Your task to perform on an android device: delete browsing data in the chrome app Image 0: 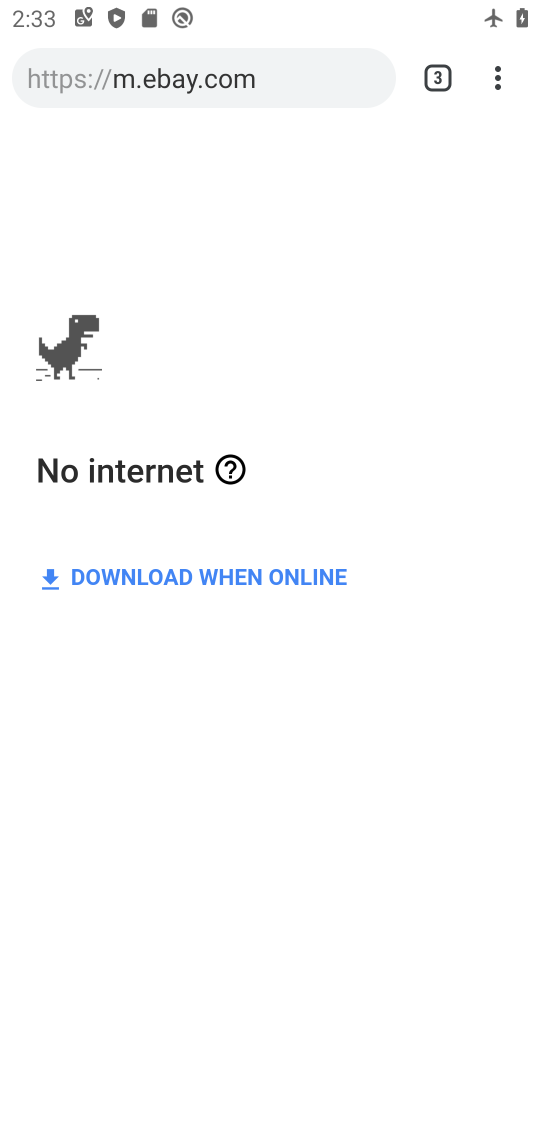
Step 0: press home button
Your task to perform on an android device: delete browsing data in the chrome app Image 1: 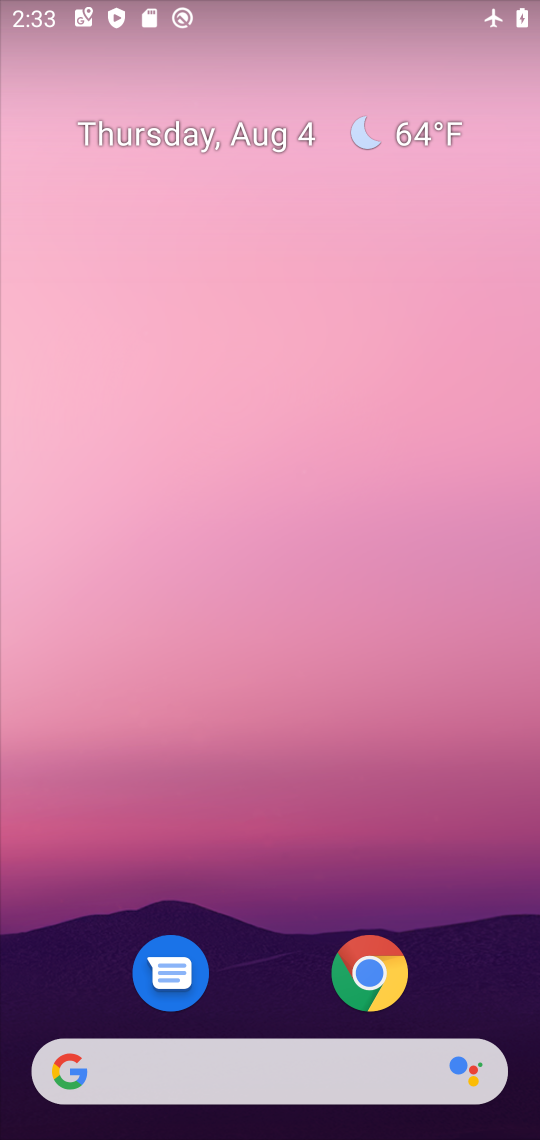
Step 1: click (338, 972)
Your task to perform on an android device: delete browsing data in the chrome app Image 2: 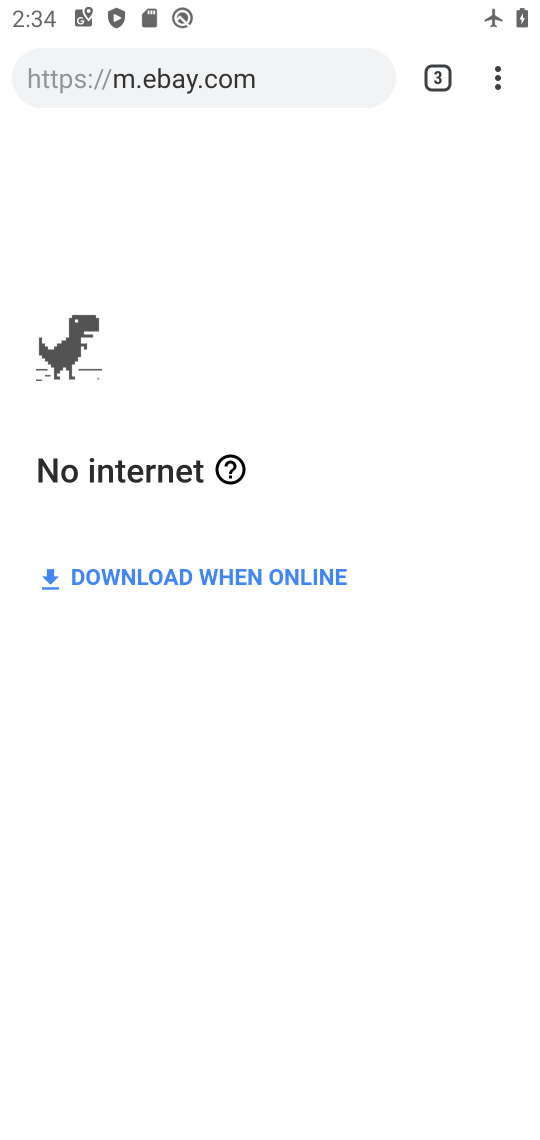
Step 2: task complete